Your task to perform on an android device: Search for sushi restaurants on Maps Image 0: 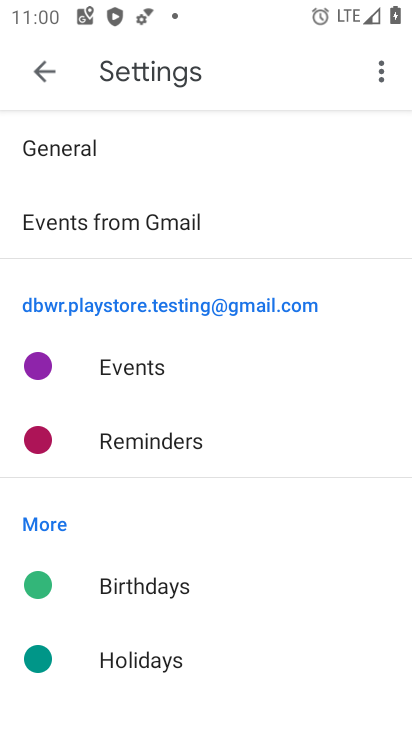
Step 0: press home button
Your task to perform on an android device: Search for sushi restaurants on Maps Image 1: 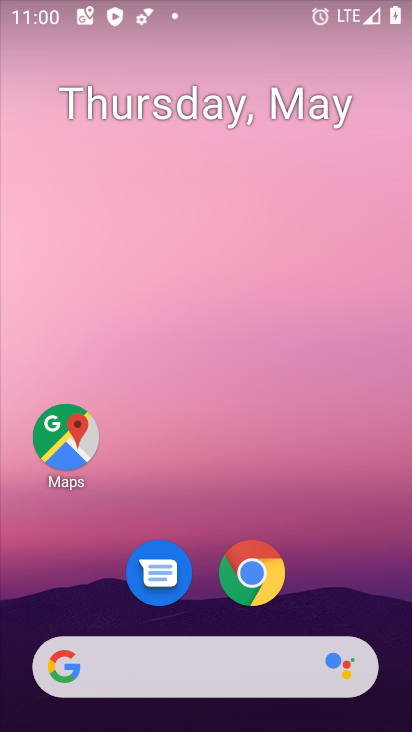
Step 1: click (60, 472)
Your task to perform on an android device: Search for sushi restaurants on Maps Image 2: 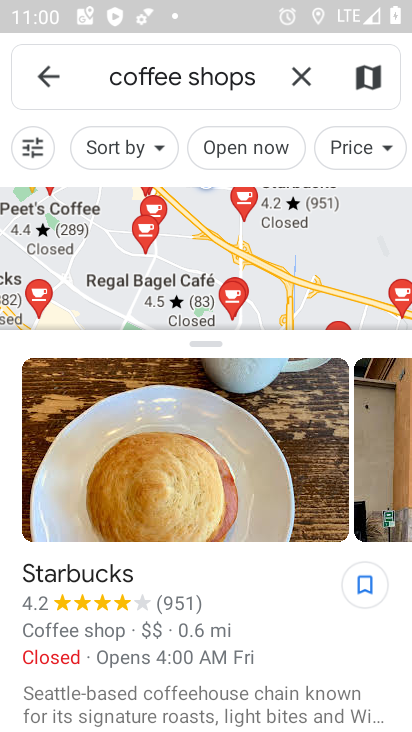
Step 2: click (303, 77)
Your task to perform on an android device: Search for sushi restaurants on Maps Image 3: 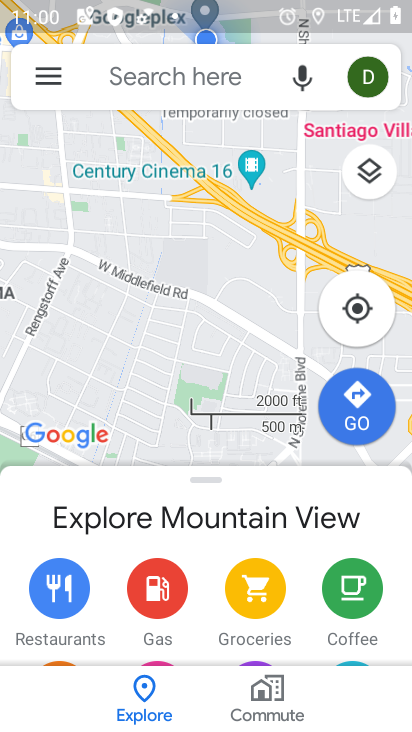
Step 3: click (202, 80)
Your task to perform on an android device: Search for sushi restaurants on Maps Image 4: 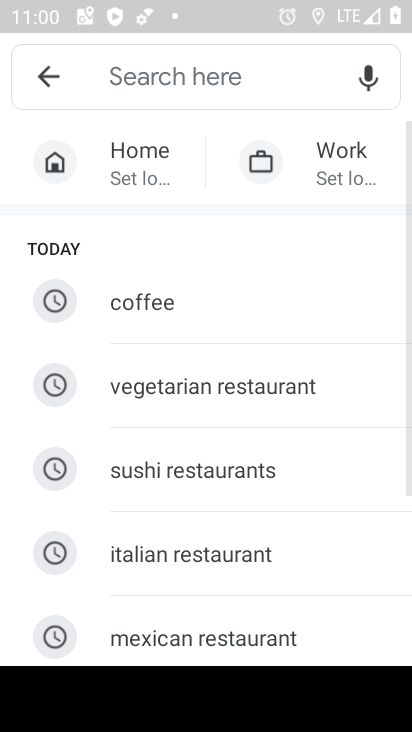
Step 4: click (163, 480)
Your task to perform on an android device: Search for sushi restaurants on Maps Image 5: 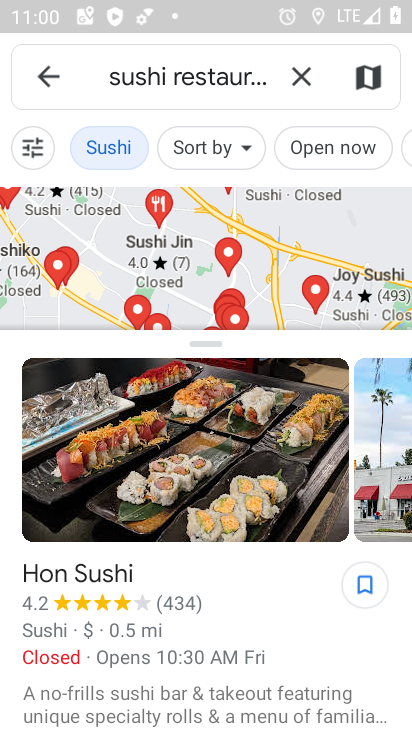
Step 5: task complete